Your task to perform on an android device: Open CNN.com Image 0: 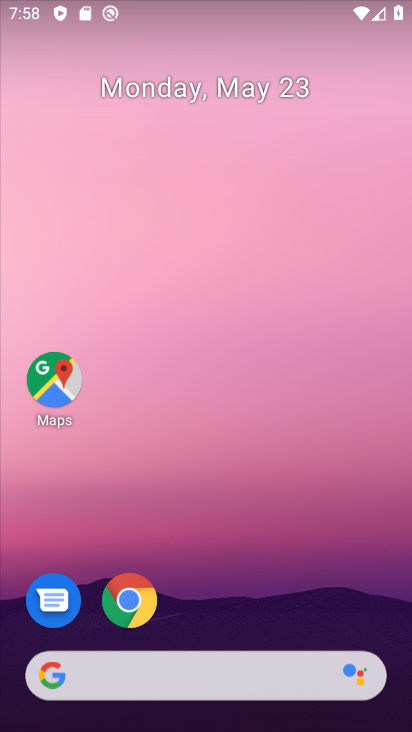
Step 0: drag from (287, 700) to (200, 228)
Your task to perform on an android device: Open CNN.com Image 1: 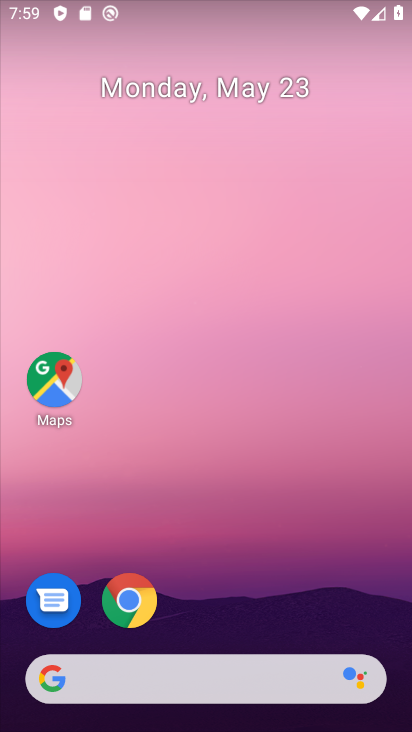
Step 1: drag from (313, 659) to (244, 57)
Your task to perform on an android device: Open CNN.com Image 2: 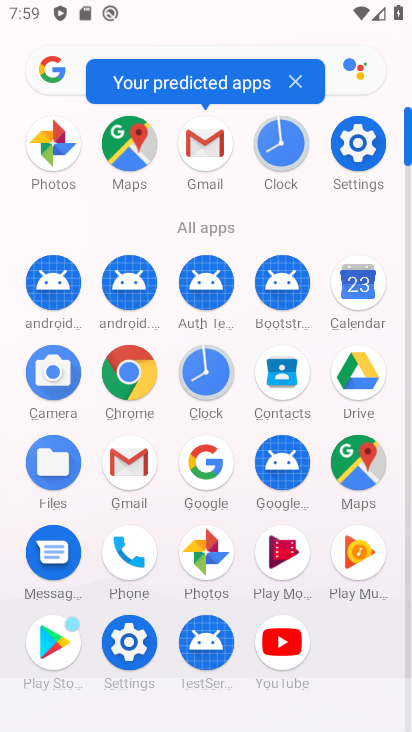
Step 2: click (310, 155)
Your task to perform on an android device: Open CNN.com Image 3: 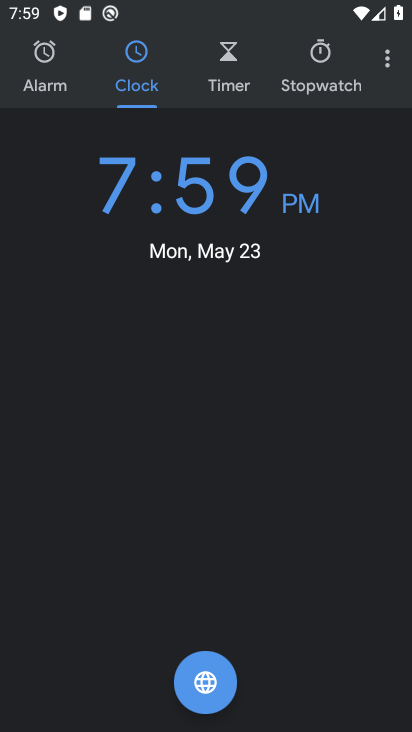
Step 3: press back button
Your task to perform on an android device: Open CNN.com Image 4: 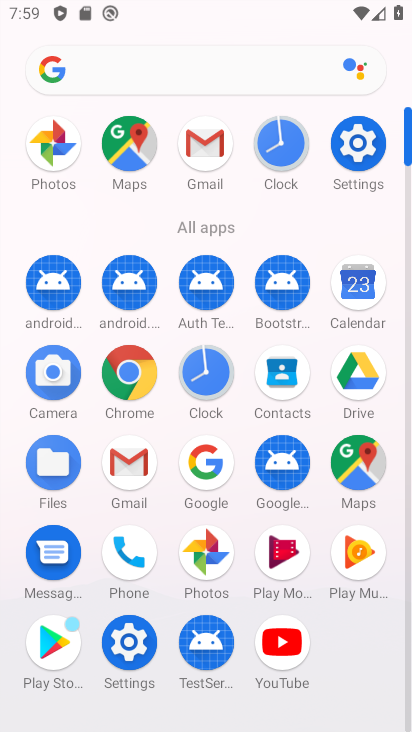
Step 4: click (124, 370)
Your task to perform on an android device: Open CNN.com Image 5: 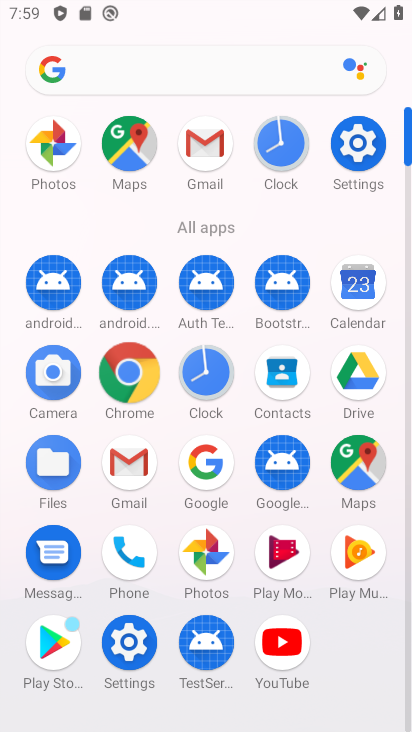
Step 5: click (125, 371)
Your task to perform on an android device: Open CNN.com Image 6: 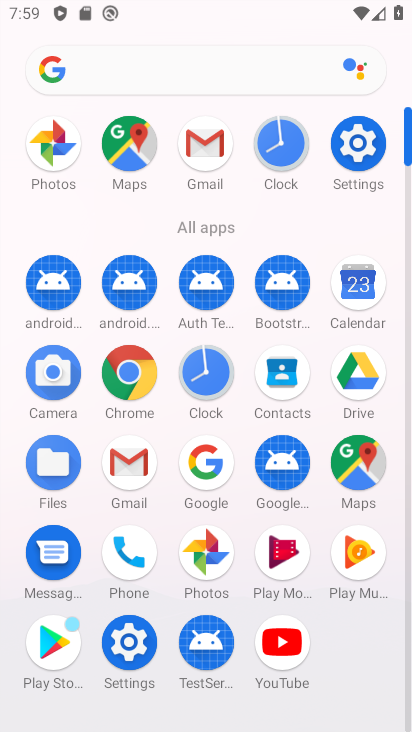
Step 6: click (124, 374)
Your task to perform on an android device: Open CNN.com Image 7: 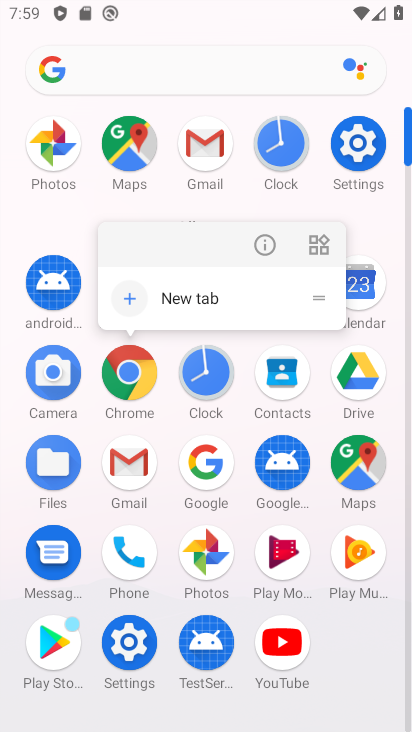
Step 7: click (126, 374)
Your task to perform on an android device: Open CNN.com Image 8: 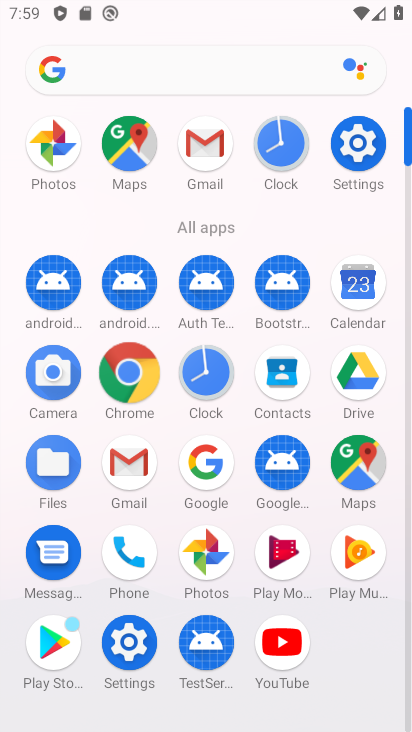
Step 8: click (126, 374)
Your task to perform on an android device: Open CNN.com Image 9: 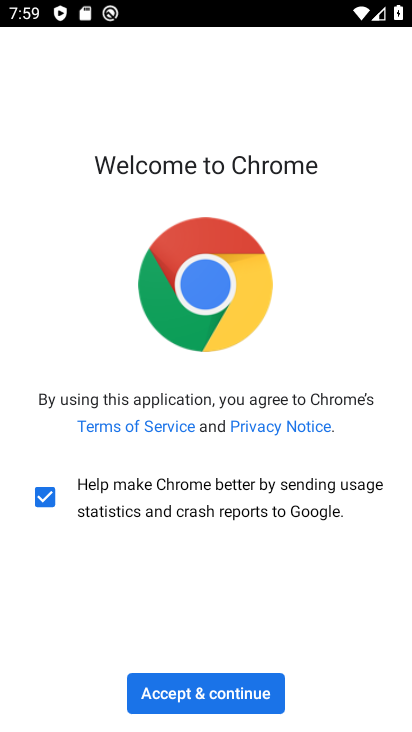
Step 9: click (220, 704)
Your task to perform on an android device: Open CNN.com Image 10: 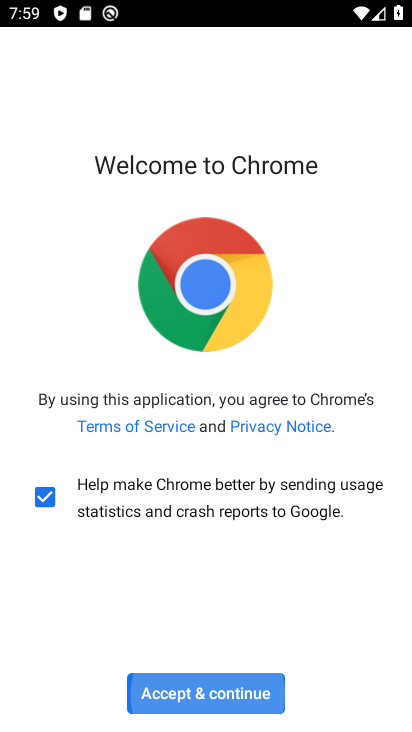
Step 10: click (220, 703)
Your task to perform on an android device: Open CNN.com Image 11: 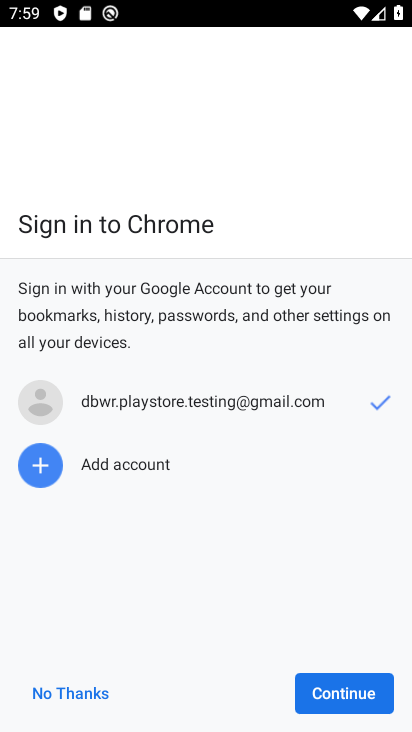
Step 11: click (220, 699)
Your task to perform on an android device: Open CNN.com Image 12: 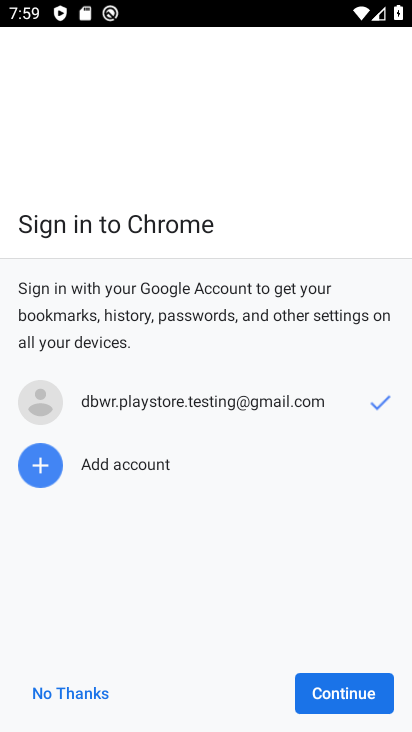
Step 12: click (221, 697)
Your task to perform on an android device: Open CNN.com Image 13: 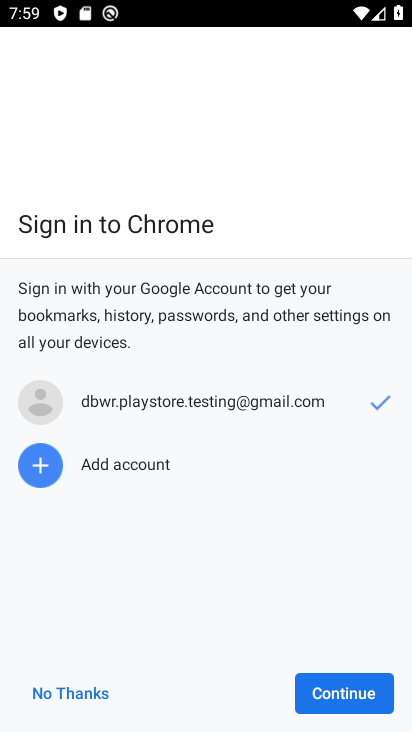
Step 13: click (351, 712)
Your task to perform on an android device: Open CNN.com Image 14: 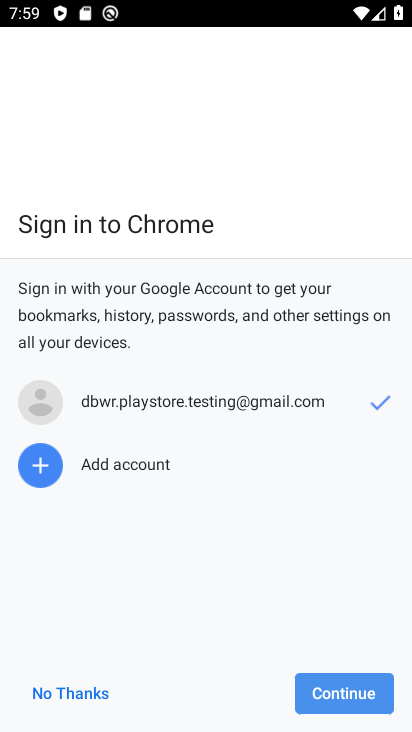
Step 14: click (357, 696)
Your task to perform on an android device: Open CNN.com Image 15: 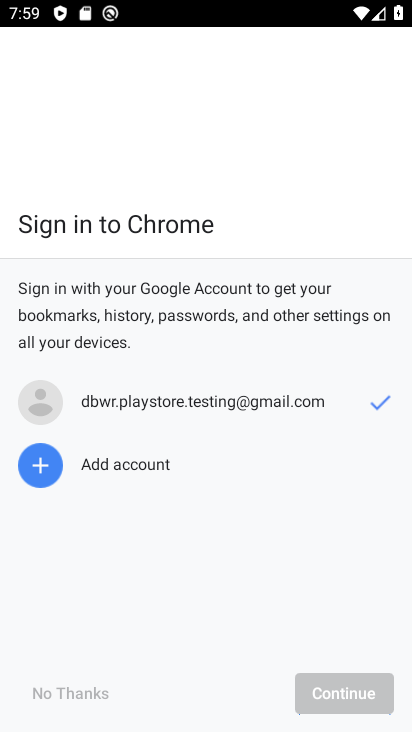
Step 15: click (358, 696)
Your task to perform on an android device: Open CNN.com Image 16: 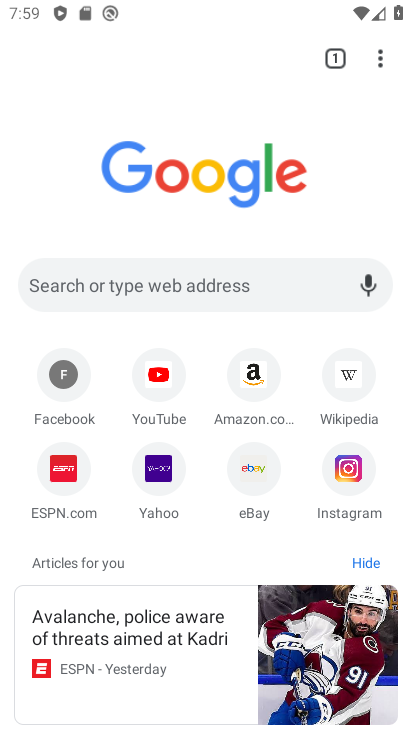
Step 16: click (59, 281)
Your task to perform on an android device: Open CNN.com Image 17: 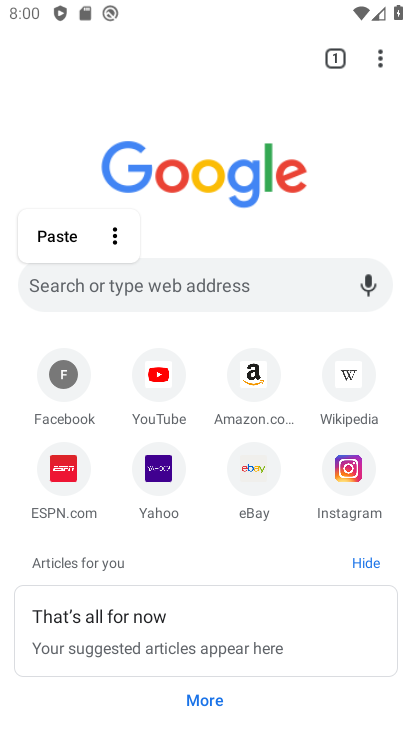
Step 17: type "cnn.com"
Your task to perform on an android device: Open CNN.com Image 18: 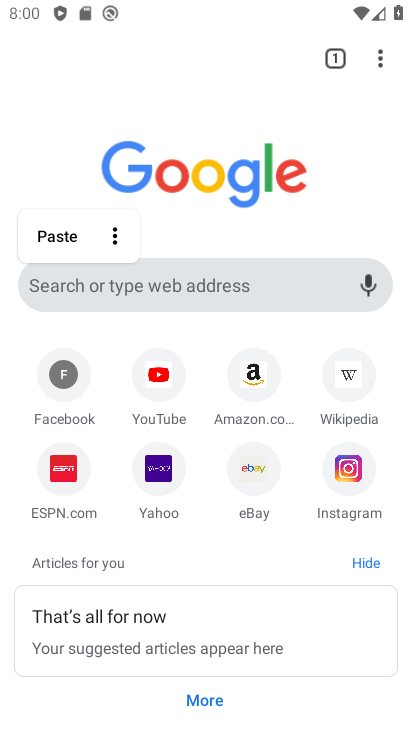
Step 18: click (94, 288)
Your task to perform on an android device: Open CNN.com Image 19: 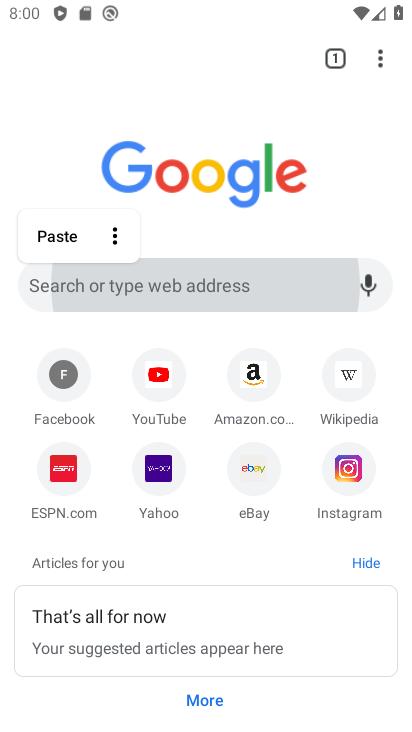
Step 19: click (94, 288)
Your task to perform on an android device: Open CNN.com Image 20: 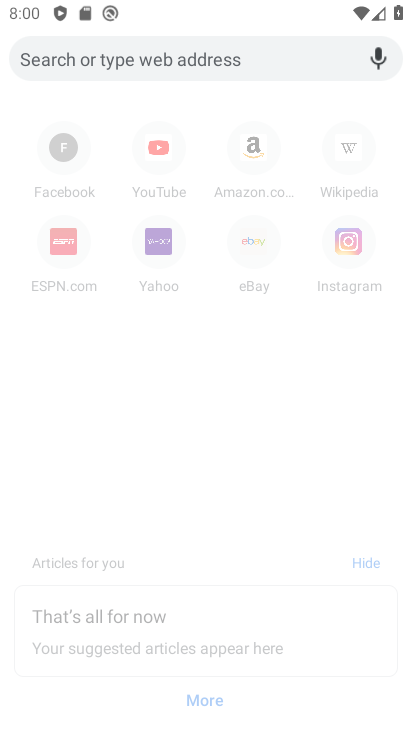
Step 20: click (94, 288)
Your task to perform on an android device: Open CNN.com Image 21: 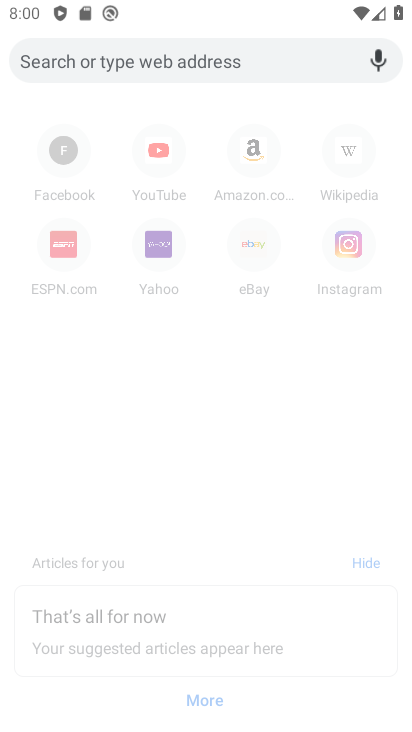
Step 21: click (94, 288)
Your task to perform on an android device: Open CNN.com Image 22: 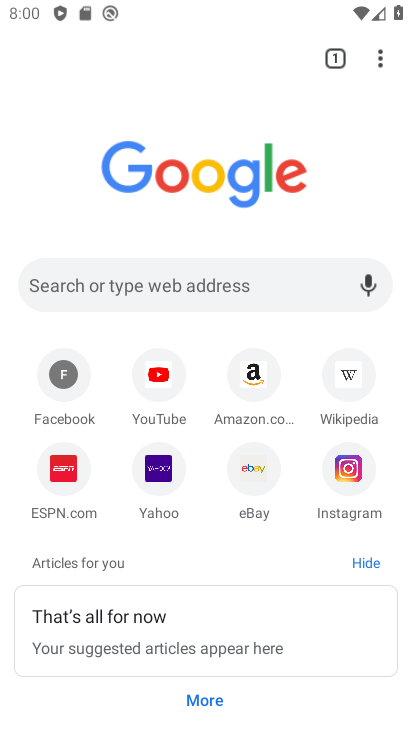
Step 22: click (96, 276)
Your task to perform on an android device: Open CNN.com Image 23: 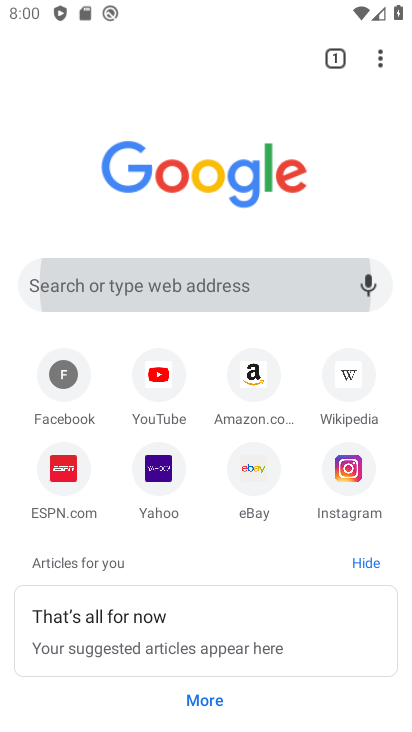
Step 23: click (72, 293)
Your task to perform on an android device: Open CNN.com Image 24: 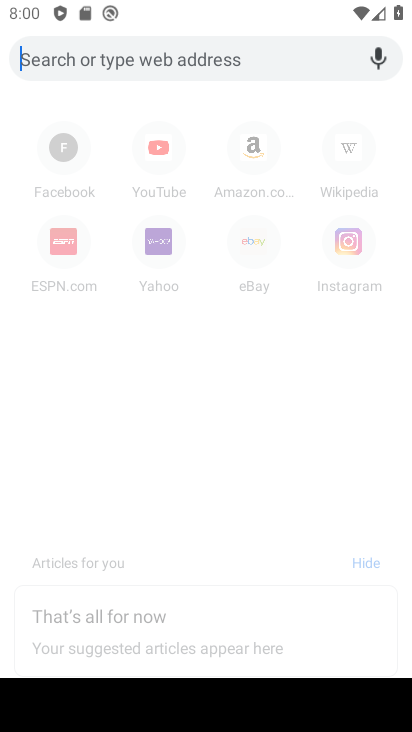
Step 24: type "cnn.com"
Your task to perform on an android device: Open CNN.com Image 25: 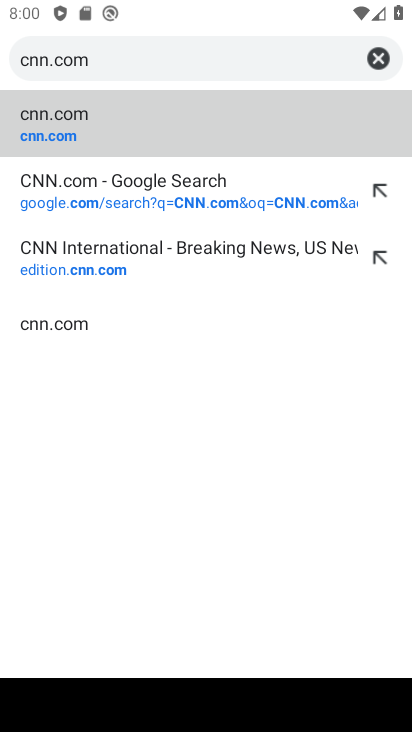
Step 25: click (44, 128)
Your task to perform on an android device: Open CNN.com Image 26: 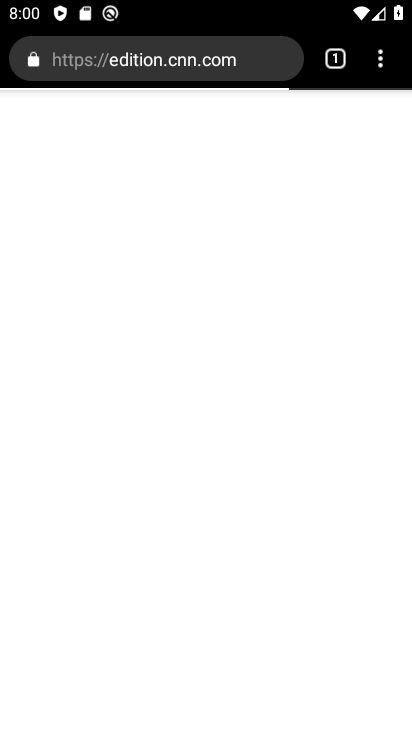
Step 26: task complete